Your task to perform on an android device: delete location history Image 0: 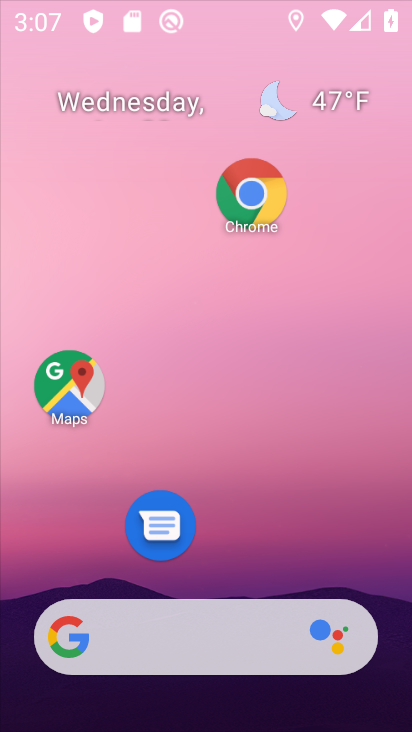
Step 0: click (272, 88)
Your task to perform on an android device: delete location history Image 1: 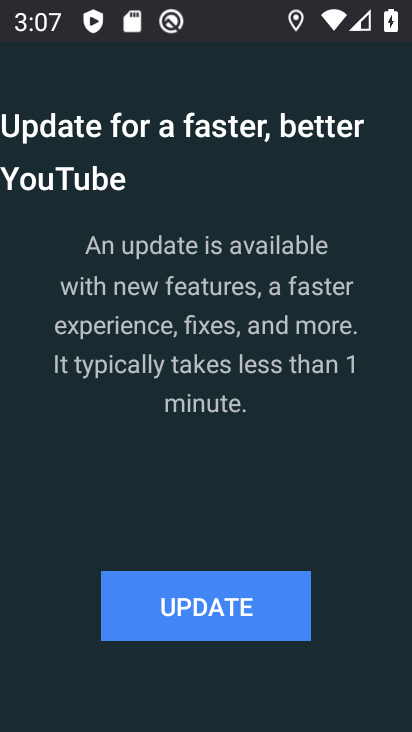
Step 1: press home button
Your task to perform on an android device: delete location history Image 2: 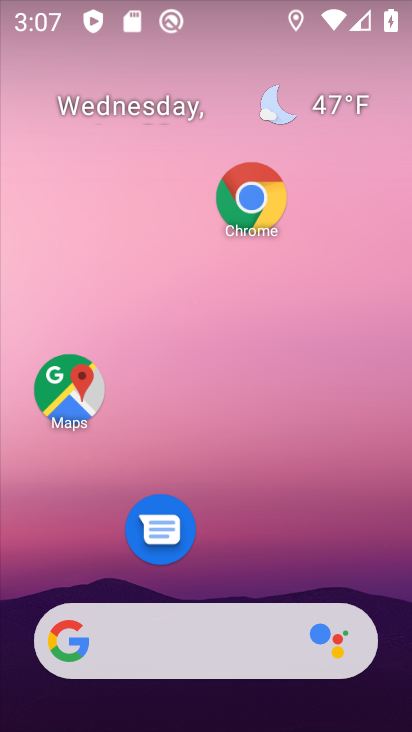
Step 2: drag from (245, 566) to (261, 76)
Your task to perform on an android device: delete location history Image 3: 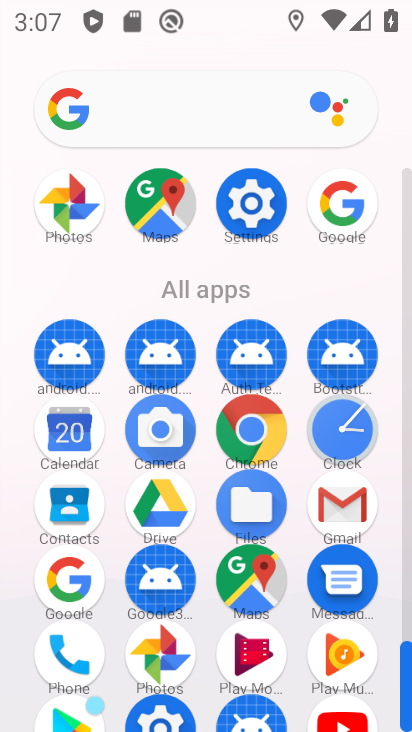
Step 3: click (259, 214)
Your task to perform on an android device: delete location history Image 4: 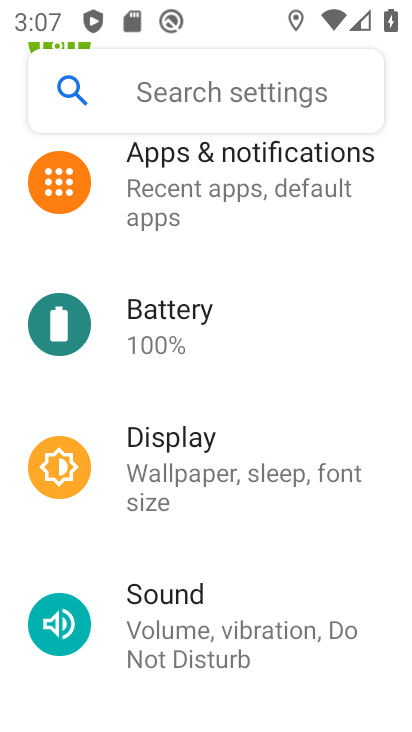
Step 4: drag from (273, 650) to (269, 112)
Your task to perform on an android device: delete location history Image 5: 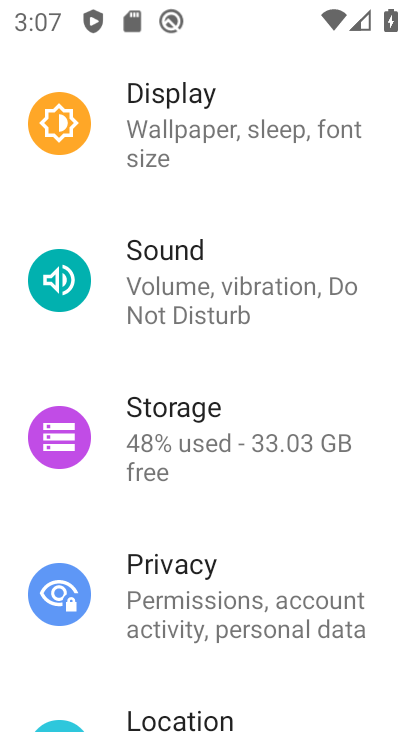
Step 5: drag from (240, 658) to (292, 180)
Your task to perform on an android device: delete location history Image 6: 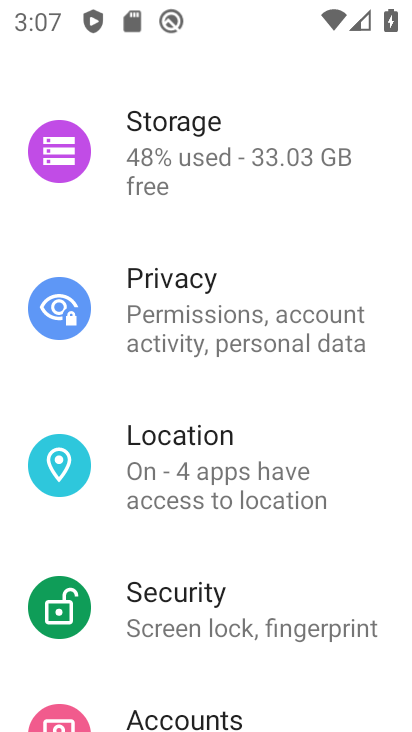
Step 6: click (238, 453)
Your task to perform on an android device: delete location history Image 7: 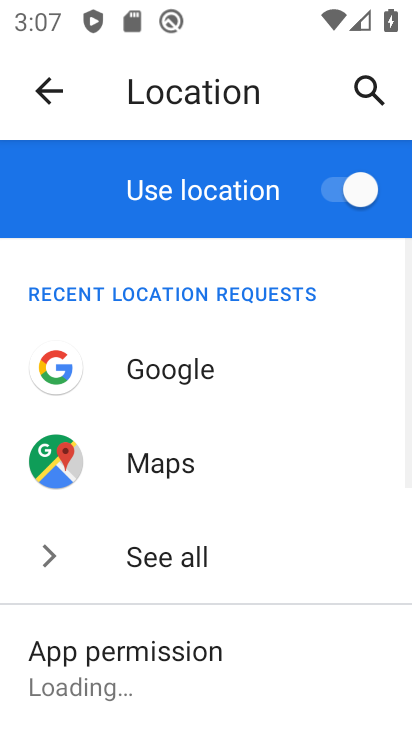
Step 7: drag from (271, 615) to (262, 143)
Your task to perform on an android device: delete location history Image 8: 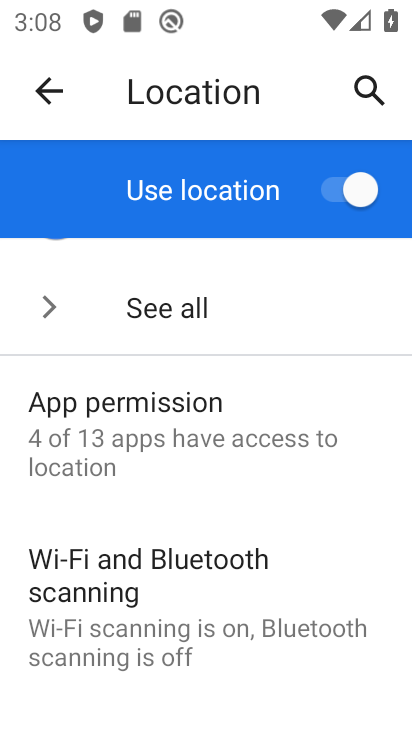
Step 8: drag from (234, 630) to (261, 128)
Your task to perform on an android device: delete location history Image 9: 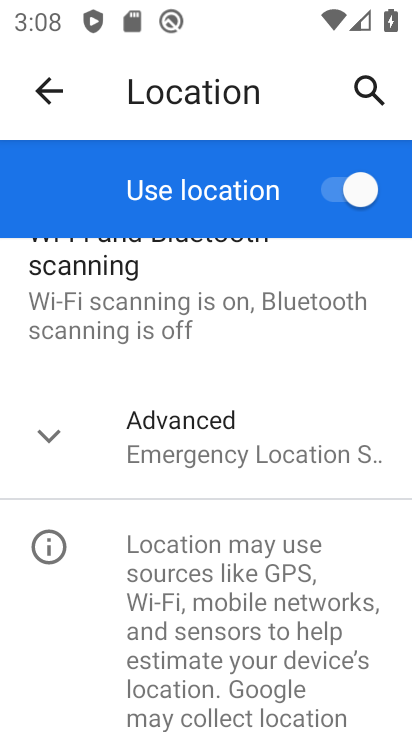
Step 9: click (162, 455)
Your task to perform on an android device: delete location history Image 10: 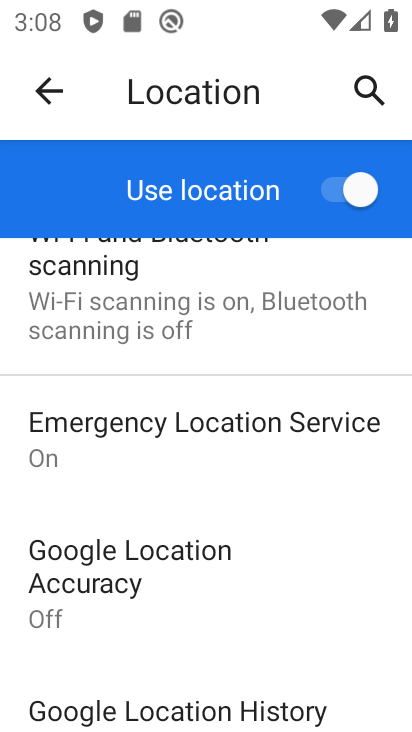
Step 10: drag from (211, 658) to (240, 301)
Your task to perform on an android device: delete location history Image 11: 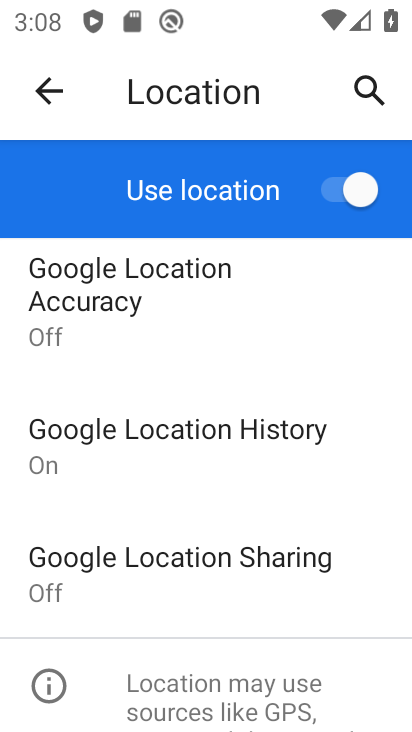
Step 11: click (168, 447)
Your task to perform on an android device: delete location history Image 12: 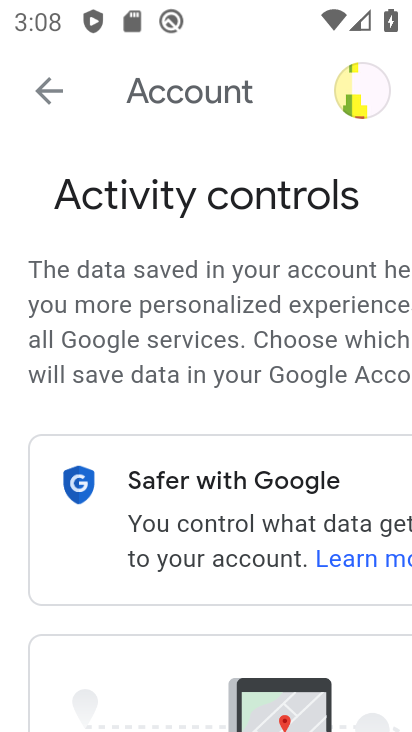
Step 12: drag from (165, 636) to (268, 154)
Your task to perform on an android device: delete location history Image 13: 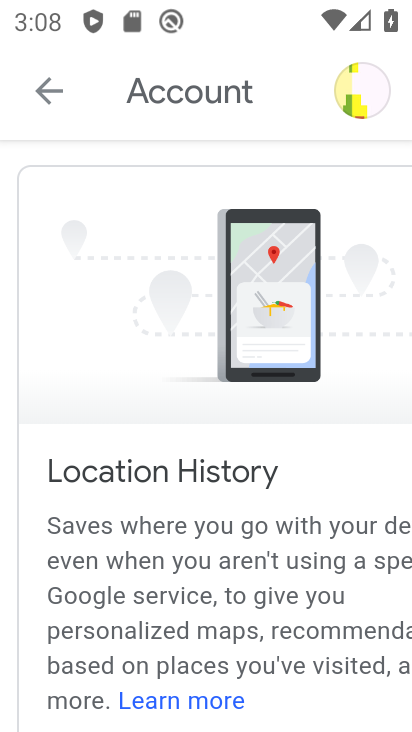
Step 13: drag from (204, 635) to (260, 261)
Your task to perform on an android device: delete location history Image 14: 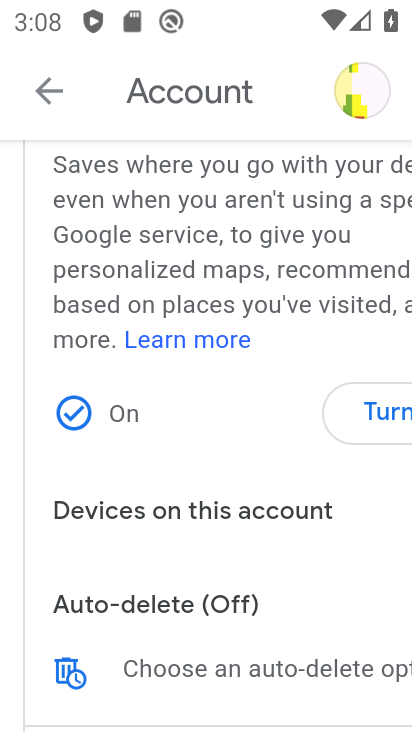
Step 14: drag from (224, 459) to (198, 228)
Your task to perform on an android device: delete location history Image 15: 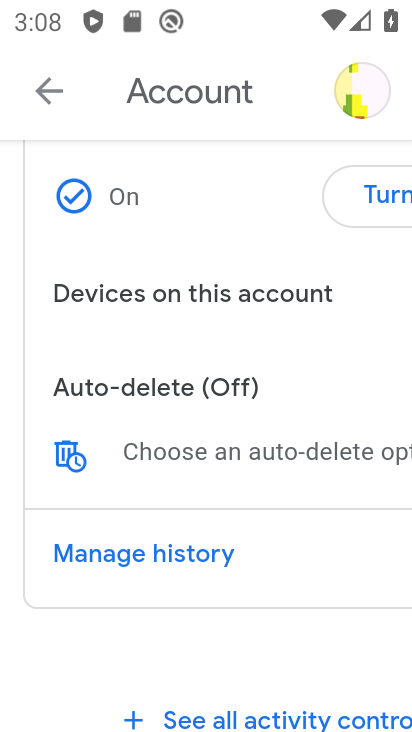
Step 15: click (66, 454)
Your task to perform on an android device: delete location history Image 16: 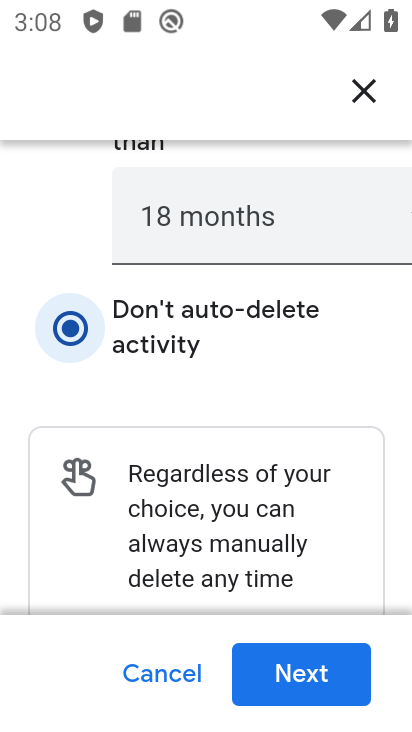
Step 16: click (306, 670)
Your task to perform on an android device: delete location history Image 17: 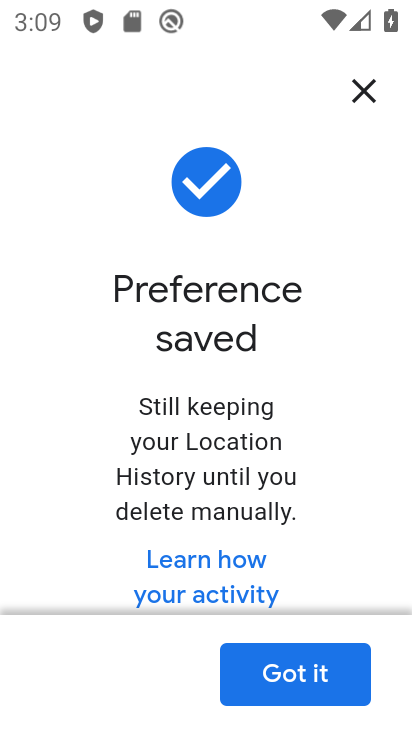
Step 17: click (300, 671)
Your task to perform on an android device: delete location history Image 18: 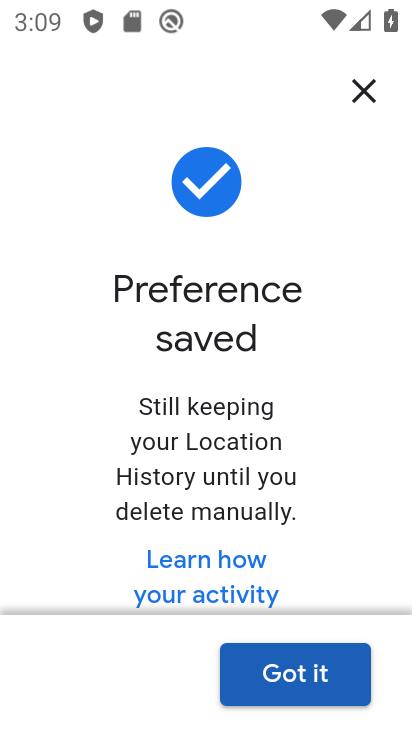
Step 18: click (304, 662)
Your task to perform on an android device: delete location history Image 19: 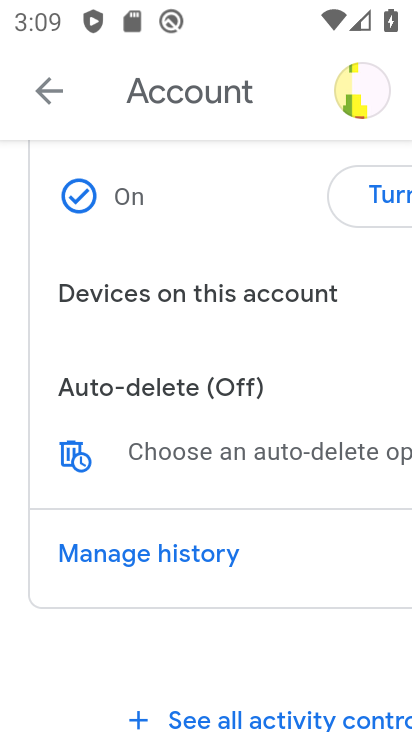
Step 19: task complete